Your task to perform on an android device: toggle notification dots Image 0: 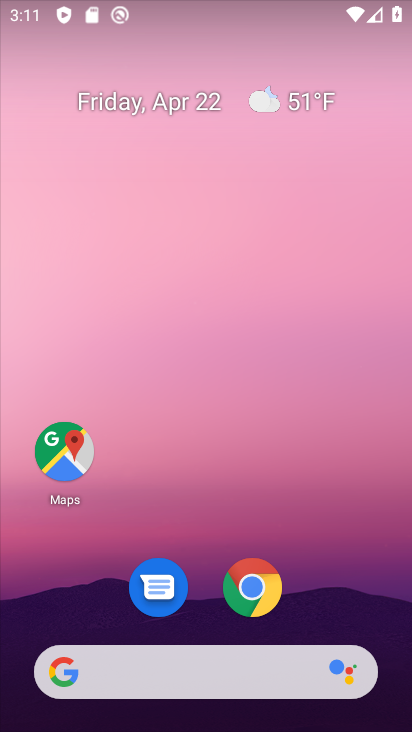
Step 0: drag from (41, 598) to (311, 191)
Your task to perform on an android device: toggle notification dots Image 1: 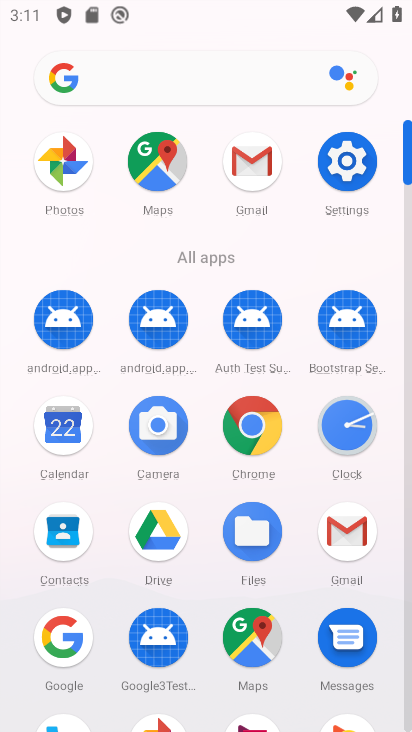
Step 1: click (349, 161)
Your task to perform on an android device: toggle notification dots Image 2: 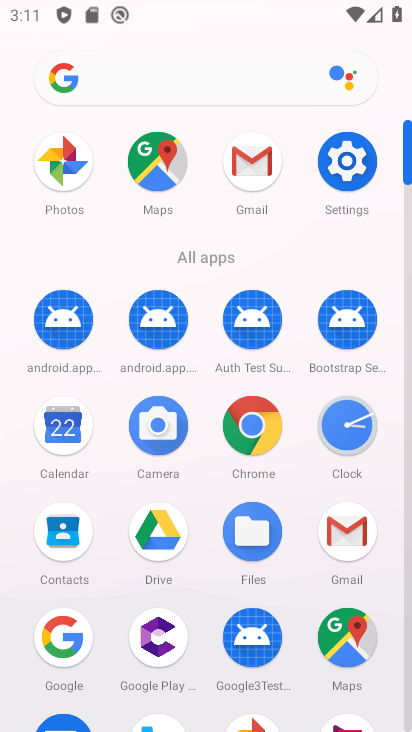
Step 2: click (349, 161)
Your task to perform on an android device: toggle notification dots Image 3: 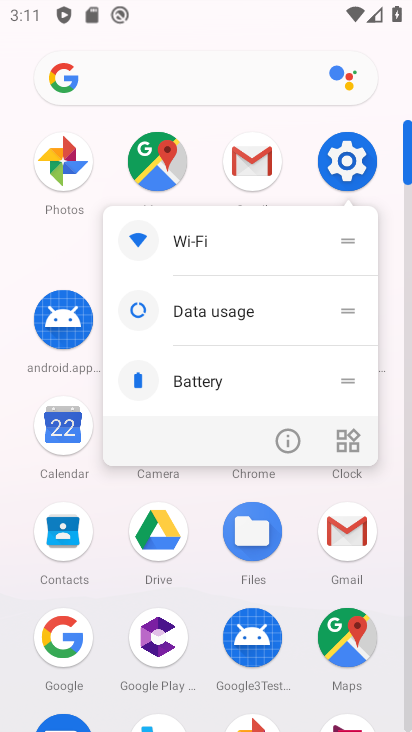
Step 3: click (286, 438)
Your task to perform on an android device: toggle notification dots Image 4: 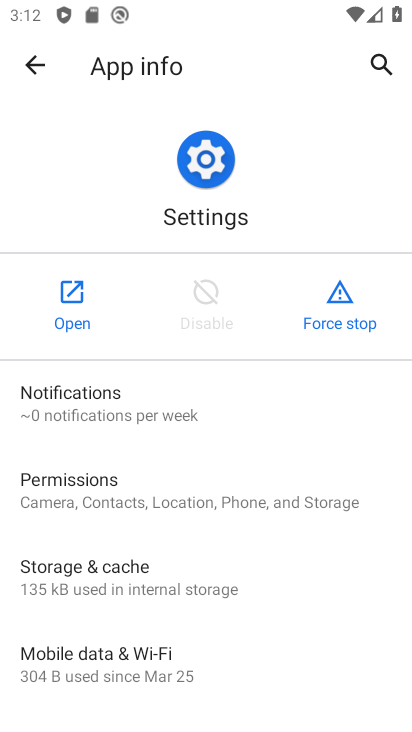
Step 4: click (58, 296)
Your task to perform on an android device: toggle notification dots Image 5: 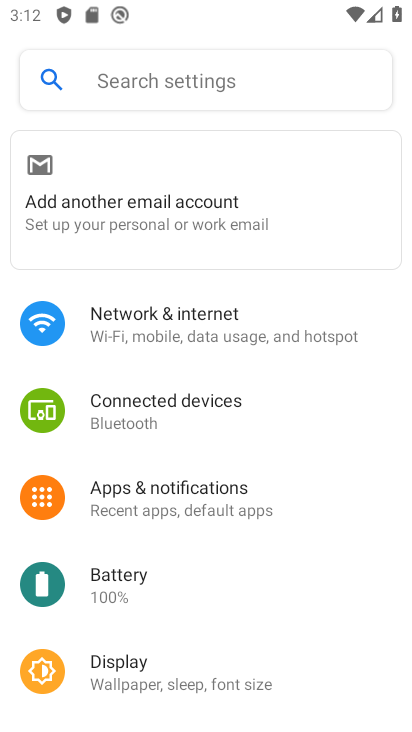
Step 5: click (202, 495)
Your task to perform on an android device: toggle notification dots Image 6: 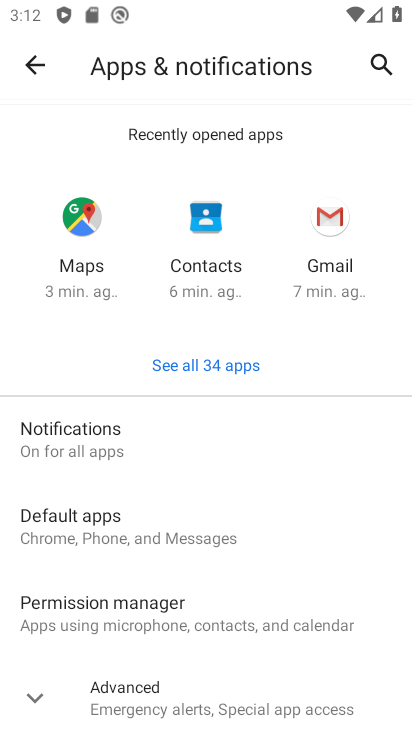
Step 6: click (140, 462)
Your task to perform on an android device: toggle notification dots Image 7: 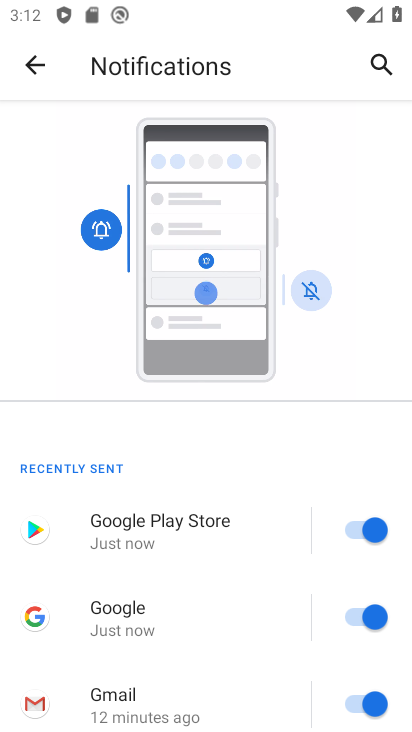
Step 7: drag from (125, 682) to (237, 328)
Your task to perform on an android device: toggle notification dots Image 8: 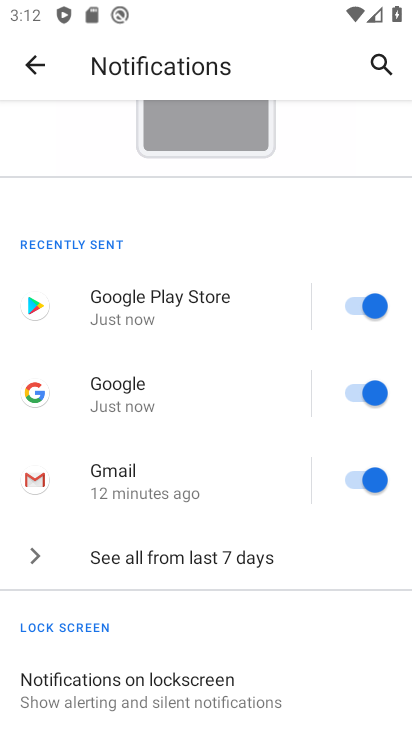
Step 8: drag from (157, 656) to (267, 341)
Your task to perform on an android device: toggle notification dots Image 9: 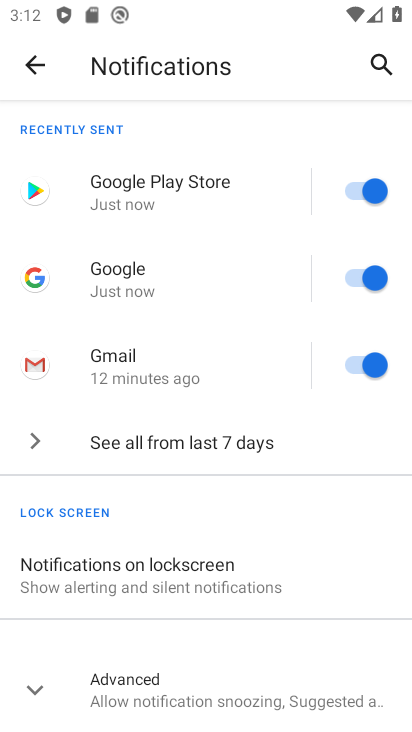
Step 9: click (167, 700)
Your task to perform on an android device: toggle notification dots Image 10: 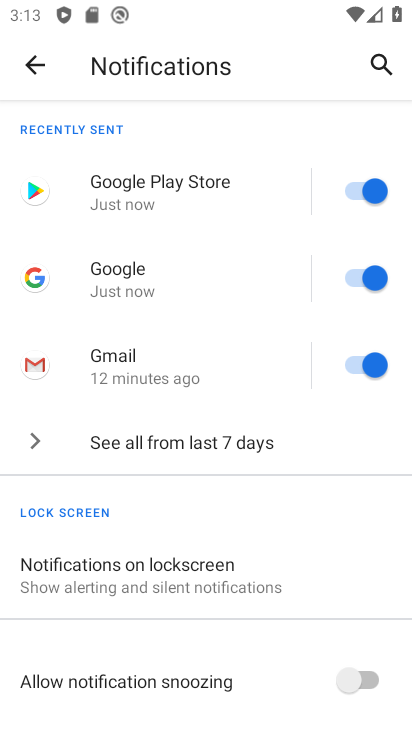
Step 10: drag from (138, 699) to (213, 310)
Your task to perform on an android device: toggle notification dots Image 11: 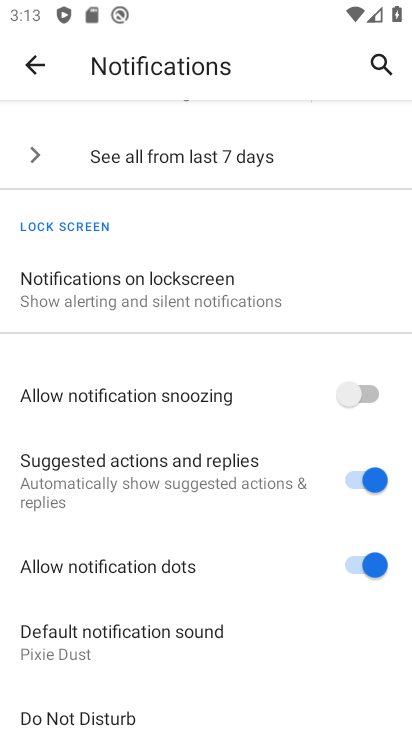
Step 11: click (378, 565)
Your task to perform on an android device: toggle notification dots Image 12: 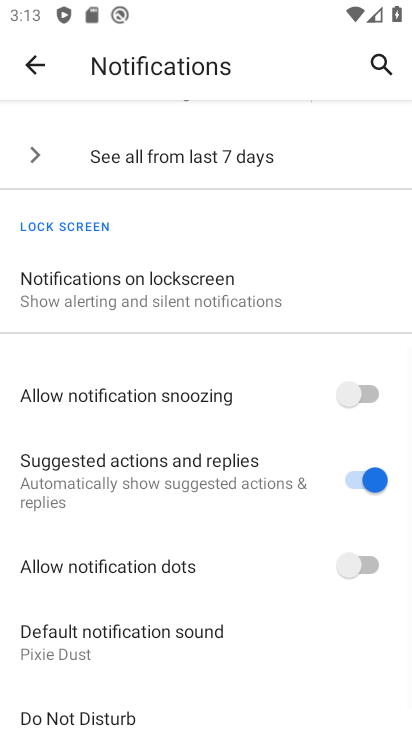
Step 12: task complete